Your task to perform on an android device: toggle location history Image 0: 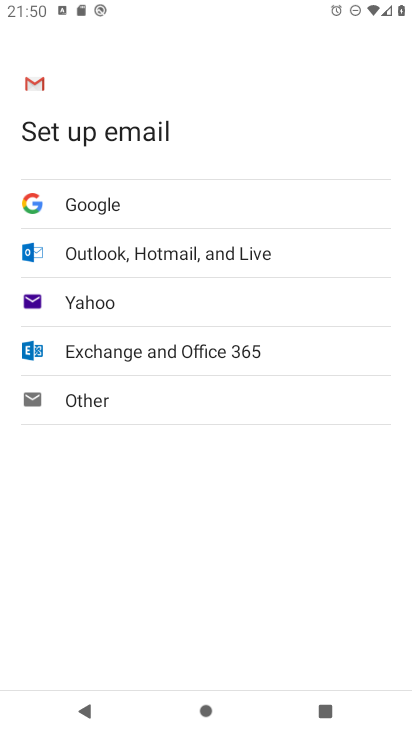
Step 0: press home button
Your task to perform on an android device: toggle location history Image 1: 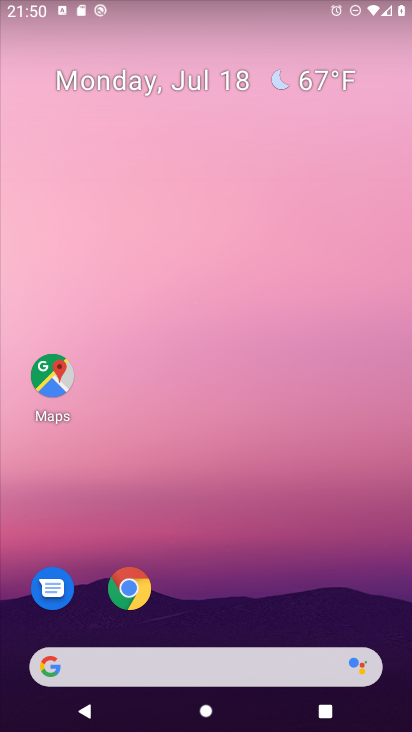
Step 1: click (49, 372)
Your task to perform on an android device: toggle location history Image 2: 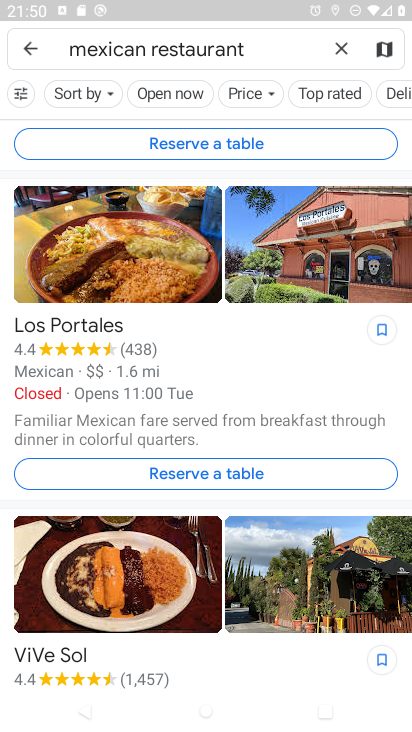
Step 2: click (342, 48)
Your task to perform on an android device: toggle location history Image 3: 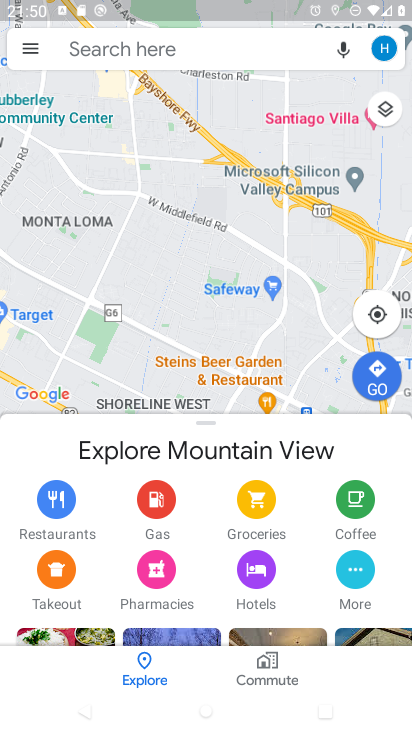
Step 3: click (32, 50)
Your task to perform on an android device: toggle location history Image 4: 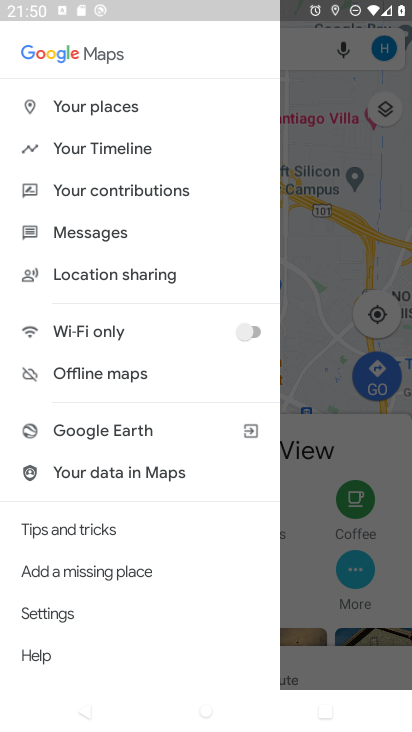
Step 4: click (56, 620)
Your task to perform on an android device: toggle location history Image 5: 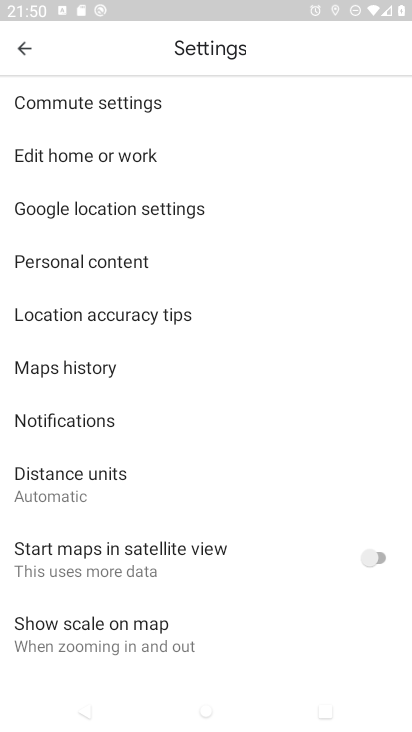
Step 5: click (92, 254)
Your task to perform on an android device: toggle location history Image 6: 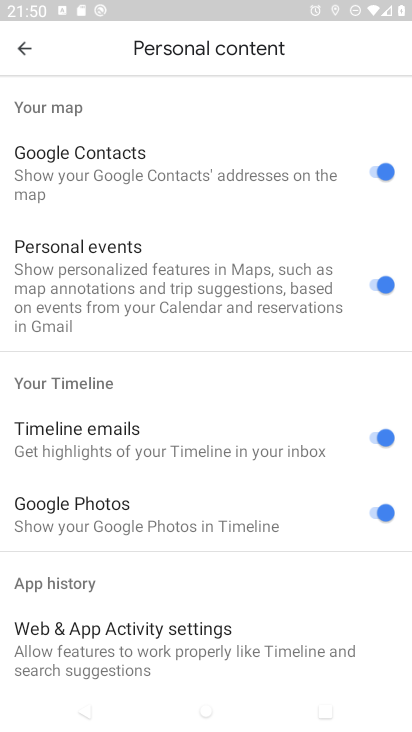
Step 6: drag from (299, 569) to (260, 238)
Your task to perform on an android device: toggle location history Image 7: 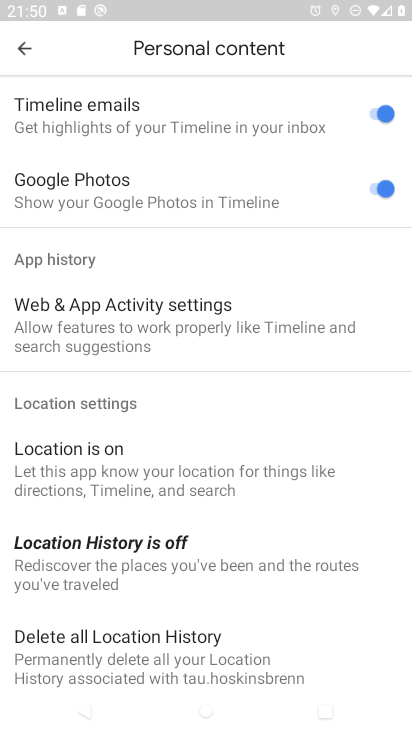
Step 7: click (123, 547)
Your task to perform on an android device: toggle location history Image 8: 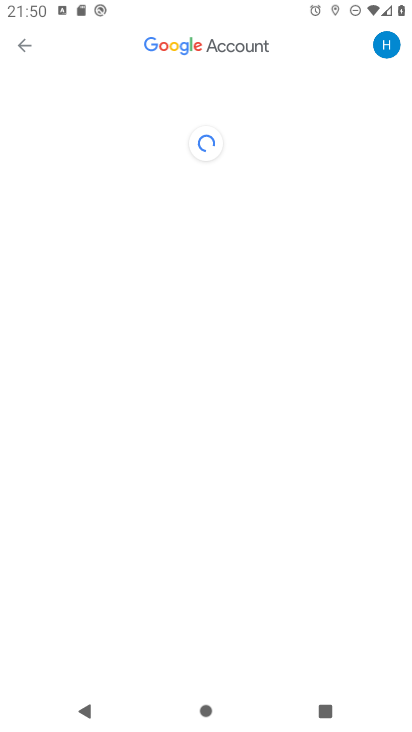
Step 8: click (104, 549)
Your task to perform on an android device: toggle location history Image 9: 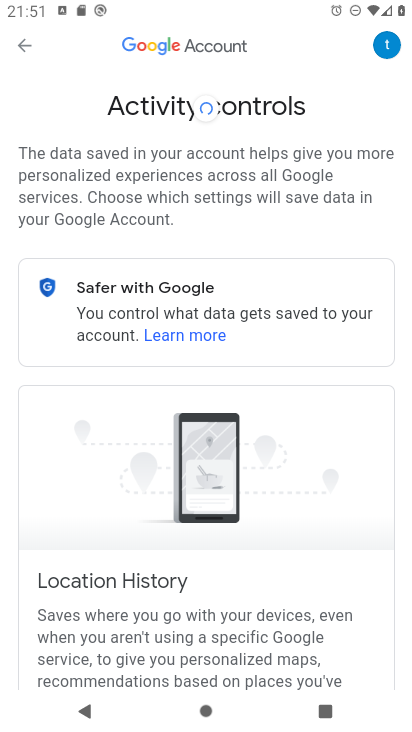
Step 9: drag from (314, 572) to (262, 251)
Your task to perform on an android device: toggle location history Image 10: 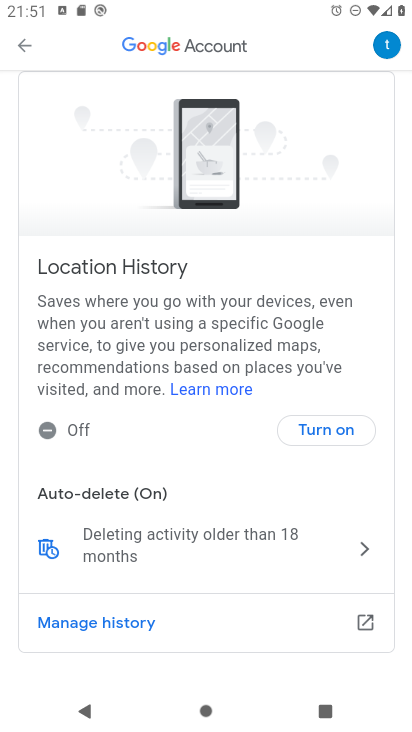
Step 10: click (323, 428)
Your task to perform on an android device: toggle location history Image 11: 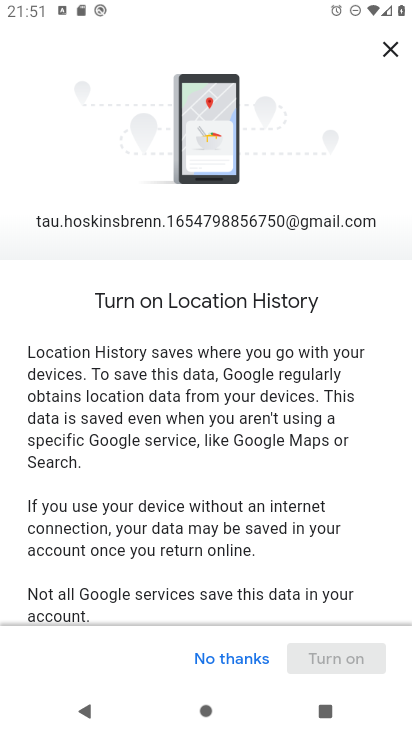
Step 11: drag from (277, 549) to (263, 216)
Your task to perform on an android device: toggle location history Image 12: 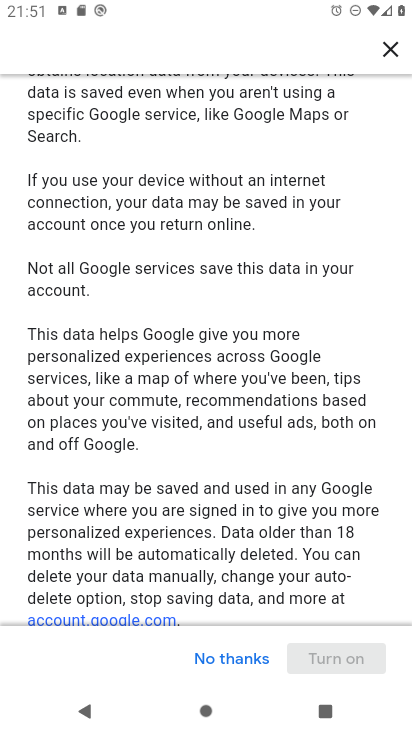
Step 12: drag from (313, 580) to (266, 195)
Your task to perform on an android device: toggle location history Image 13: 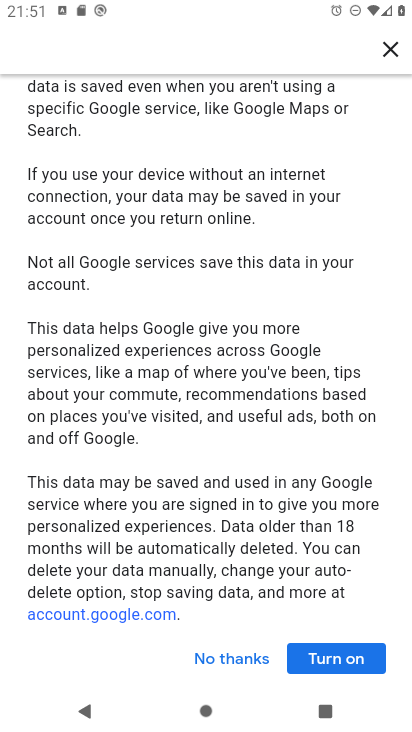
Step 13: click (334, 658)
Your task to perform on an android device: toggle location history Image 14: 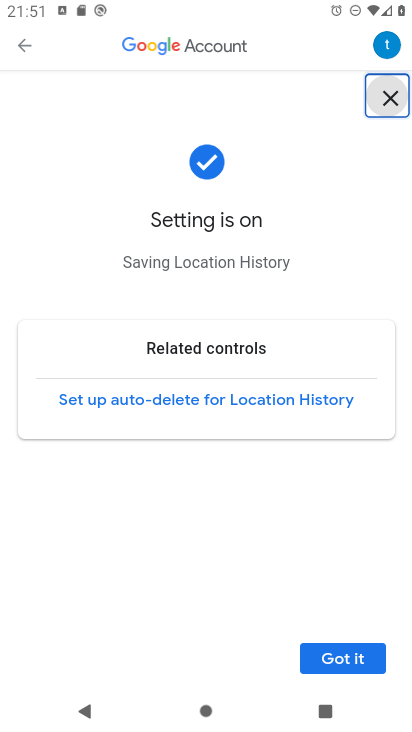
Step 14: click (346, 660)
Your task to perform on an android device: toggle location history Image 15: 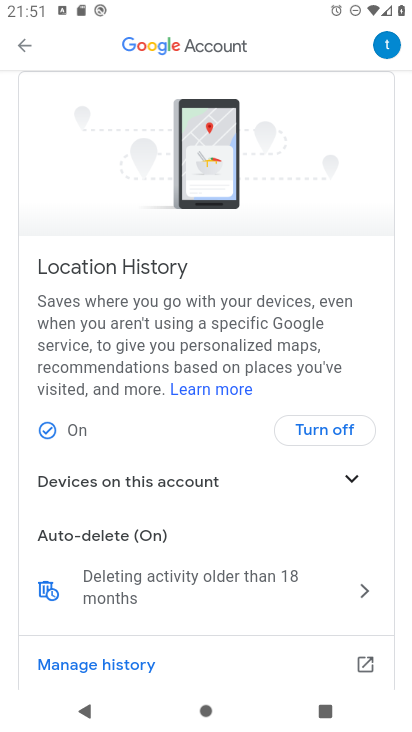
Step 15: task complete